Your task to perform on an android device: toggle priority inbox in the gmail app Image 0: 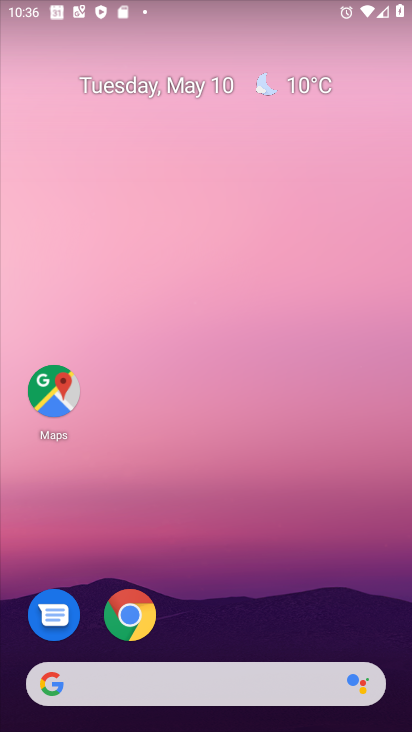
Step 0: drag from (207, 647) to (269, 61)
Your task to perform on an android device: toggle priority inbox in the gmail app Image 1: 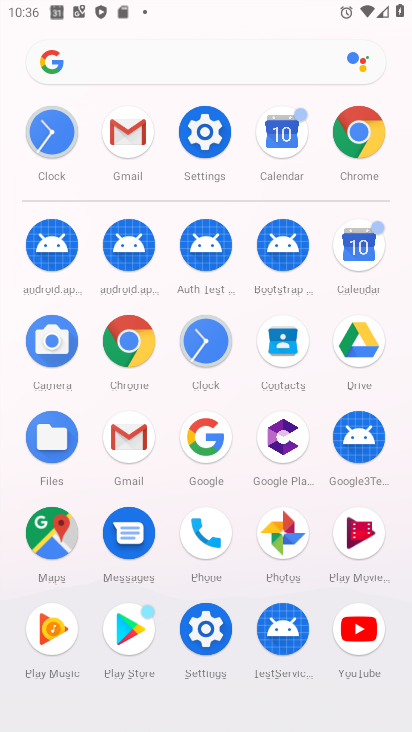
Step 1: click (131, 435)
Your task to perform on an android device: toggle priority inbox in the gmail app Image 2: 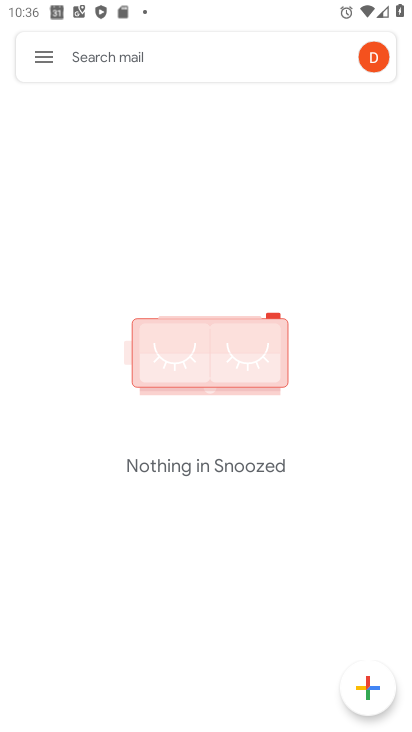
Step 2: click (37, 47)
Your task to perform on an android device: toggle priority inbox in the gmail app Image 3: 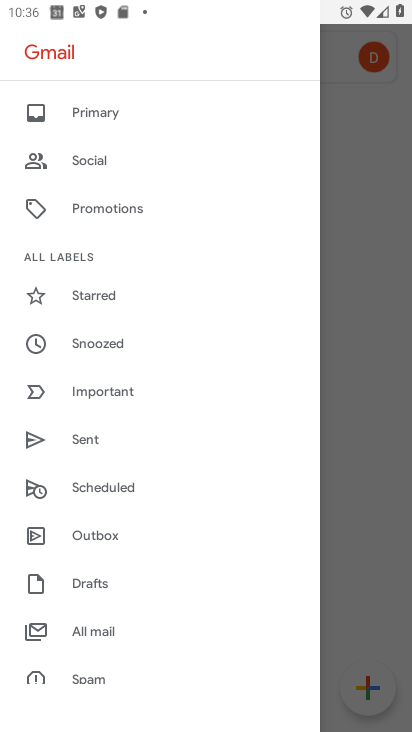
Step 3: drag from (83, 675) to (137, 191)
Your task to perform on an android device: toggle priority inbox in the gmail app Image 4: 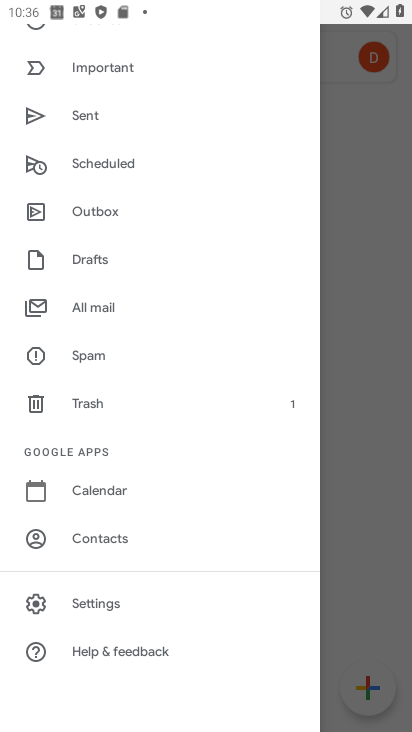
Step 4: click (136, 598)
Your task to perform on an android device: toggle priority inbox in the gmail app Image 5: 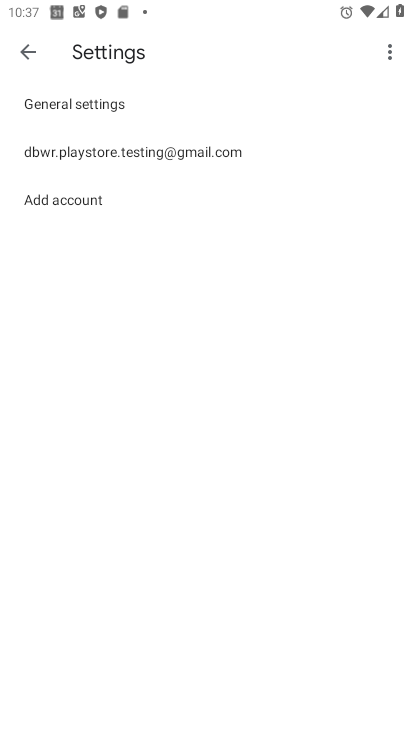
Step 5: click (255, 149)
Your task to perform on an android device: toggle priority inbox in the gmail app Image 6: 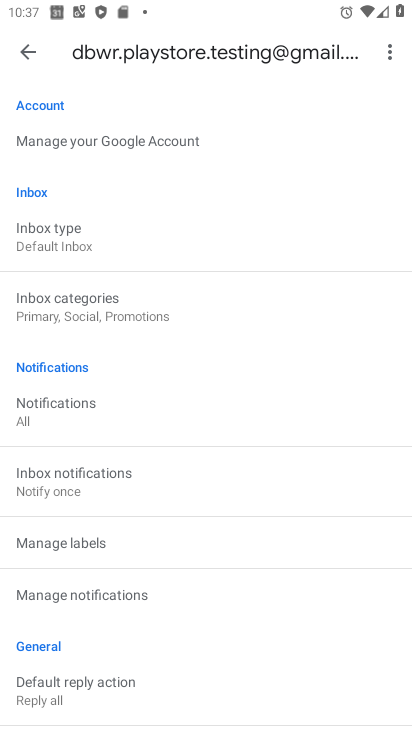
Step 6: click (106, 235)
Your task to perform on an android device: toggle priority inbox in the gmail app Image 7: 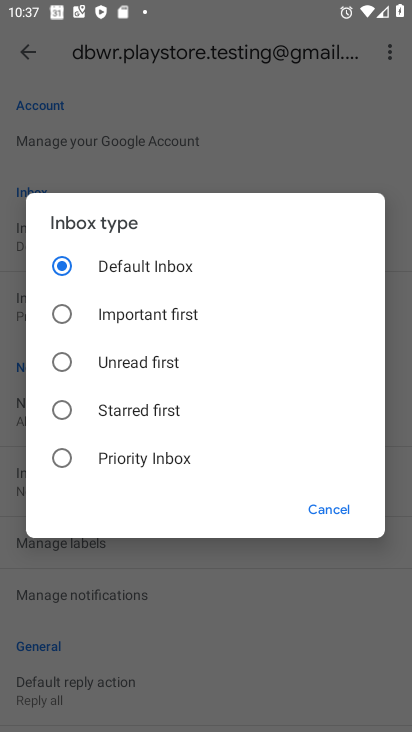
Step 7: click (70, 438)
Your task to perform on an android device: toggle priority inbox in the gmail app Image 8: 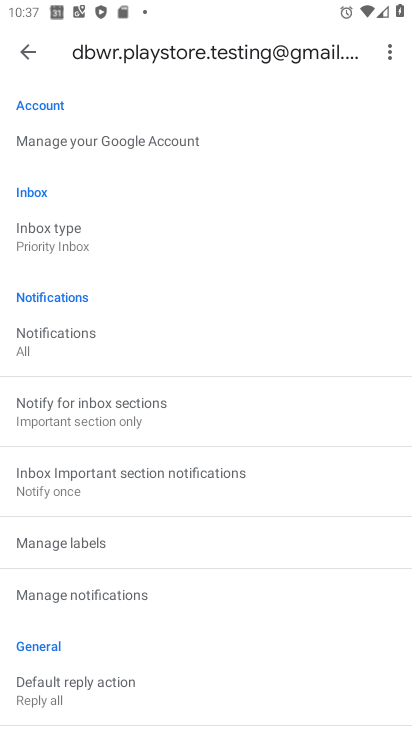
Step 8: task complete